Your task to perform on an android device: change the clock display to digital Image 0: 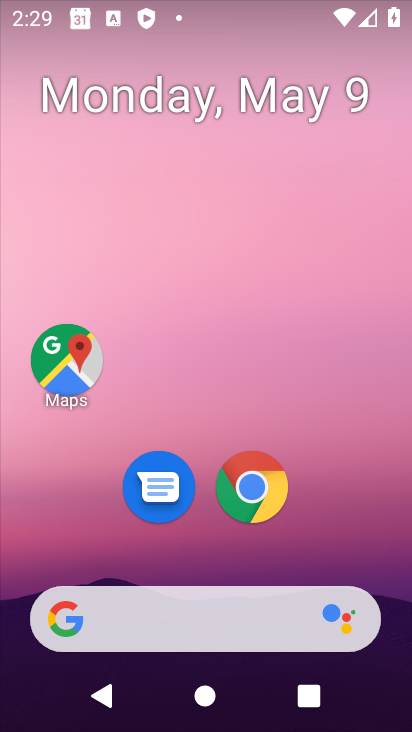
Step 0: drag from (345, 500) to (273, 70)
Your task to perform on an android device: change the clock display to digital Image 1: 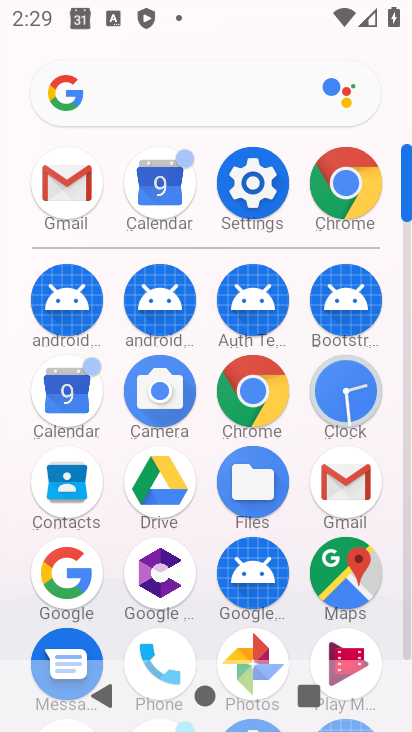
Step 1: click (343, 383)
Your task to perform on an android device: change the clock display to digital Image 2: 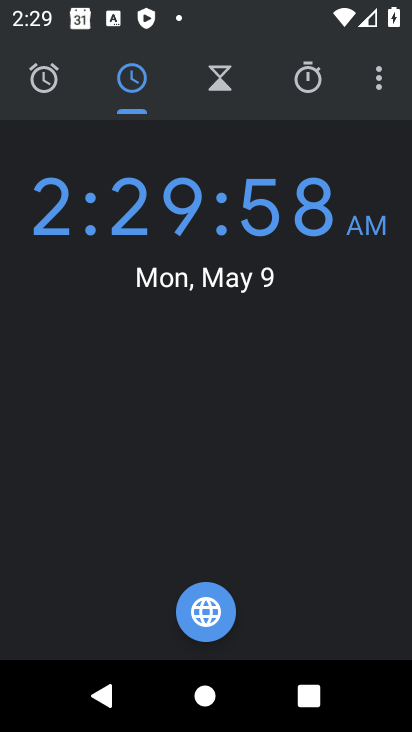
Step 2: task complete